Your task to perform on an android device: Find coffee shops on Maps Image 0: 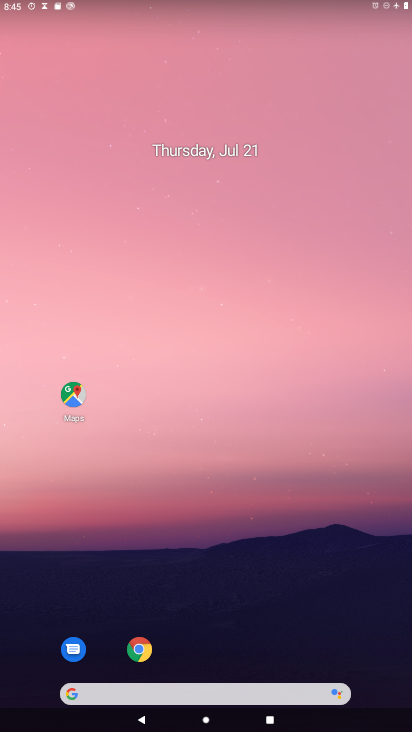
Step 0: drag from (383, 675) to (220, 24)
Your task to perform on an android device: Find coffee shops on Maps Image 1: 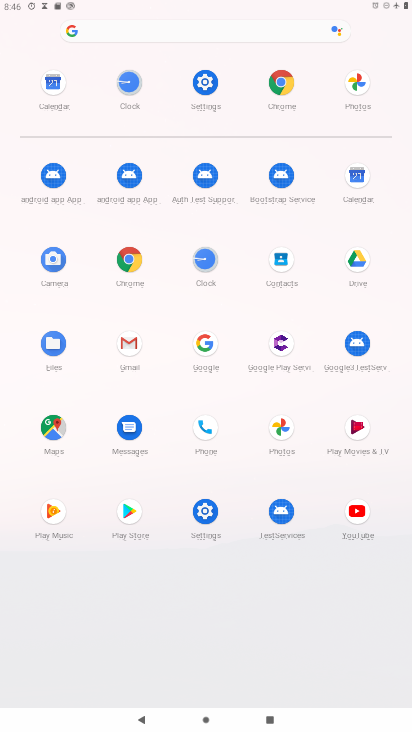
Step 1: click (58, 424)
Your task to perform on an android device: Find coffee shops on Maps Image 2: 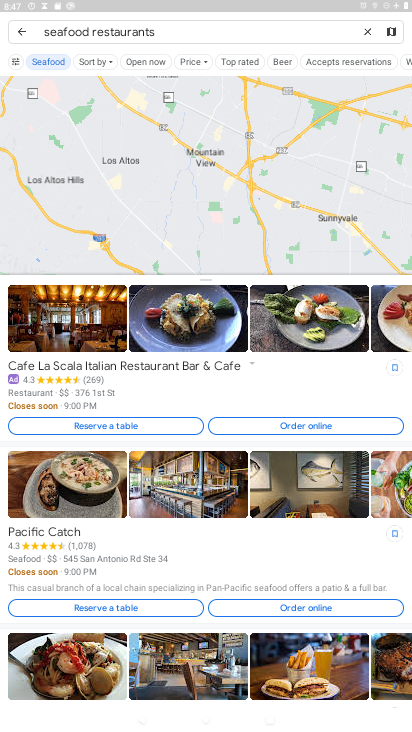
Step 2: click (366, 32)
Your task to perform on an android device: Find coffee shops on Maps Image 3: 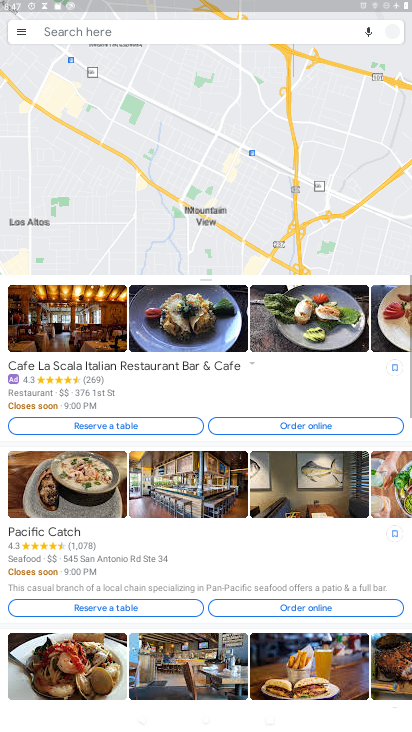
Step 3: click (161, 32)
Your task to perform on an android device: Find coffee shops on Maps Image 4: 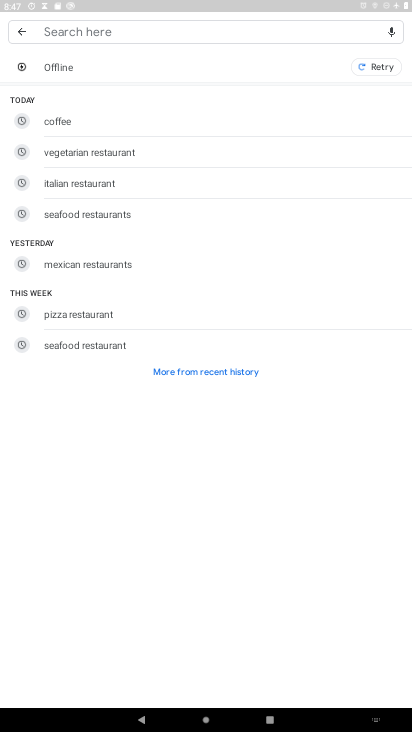
Step 4: click (44, 124)
Your task to perform on an android device: Find coffee shops on Maps Image 5: 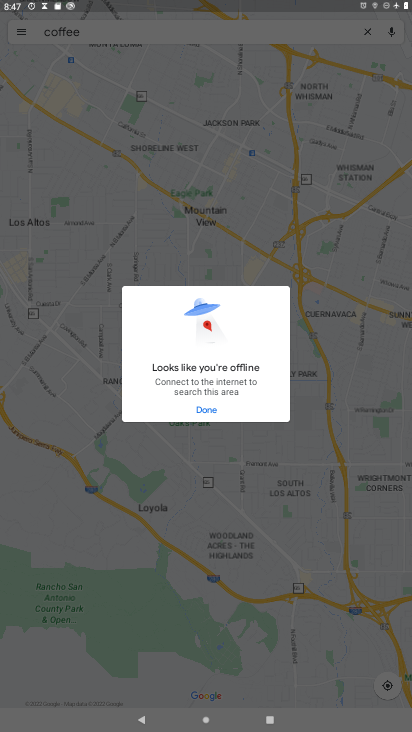
Step 5: task complete